Your task to perform on an android device: View the shopping cart on bestbuy. Add "razer nari" to the cart on bestbuy Image 0: 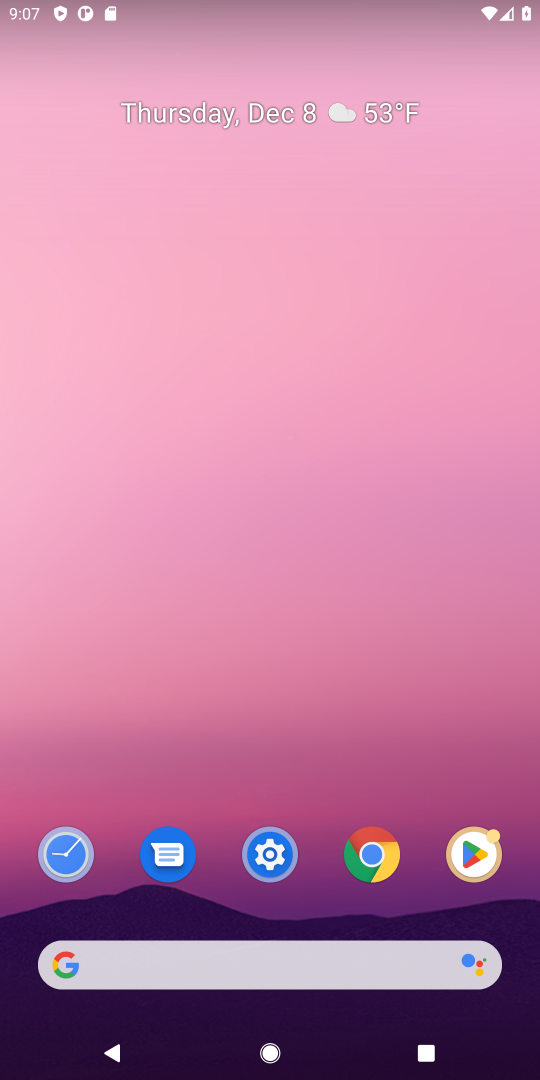
Step 0: press home button
Your task to perform on an android device: View the shopping cart on bestbuy. Add "razer nari" to the cart on bestbuy Image 1: 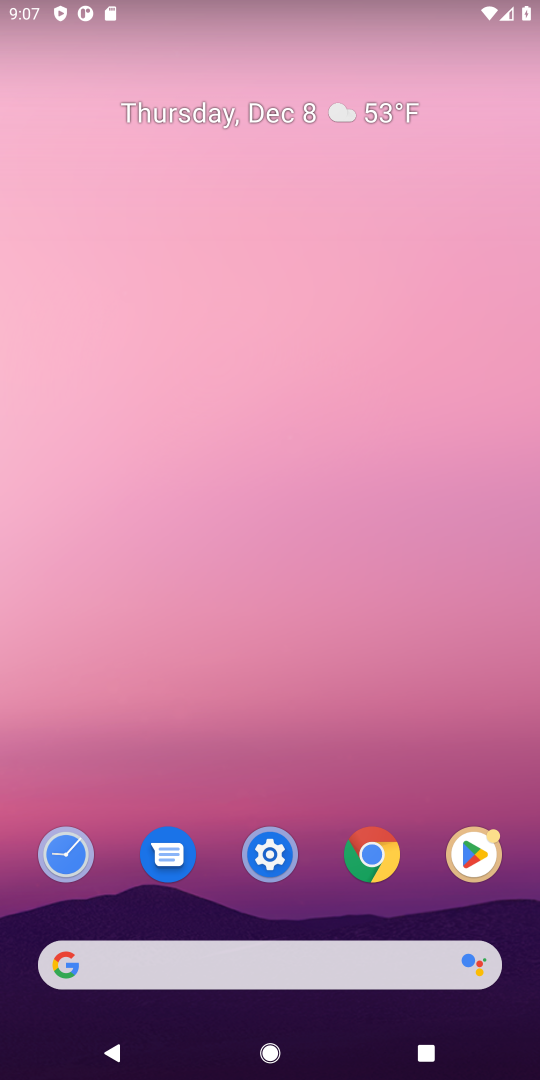
Step 1: click (96, 967)
Your task to perform on an android device: View the shopping cart on bestbuy. Add "razer nari" to the cart on bestbuy Image 2: 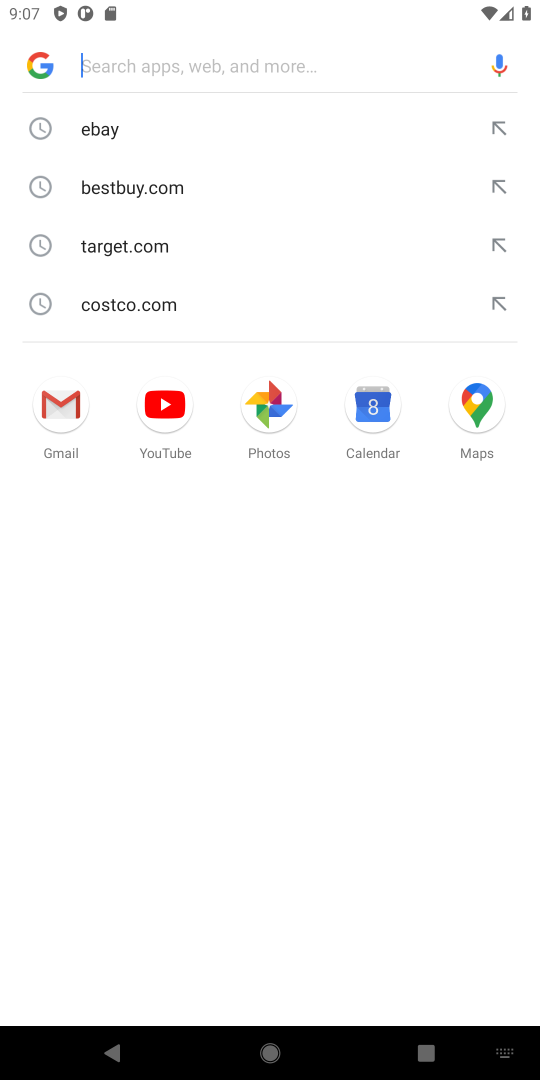
Step 2: type "bestbuy"
Your task to perform on an android device: View the shopping cart on bestbuy. Add "razer nari" to the cart on bestbuy Image 3: 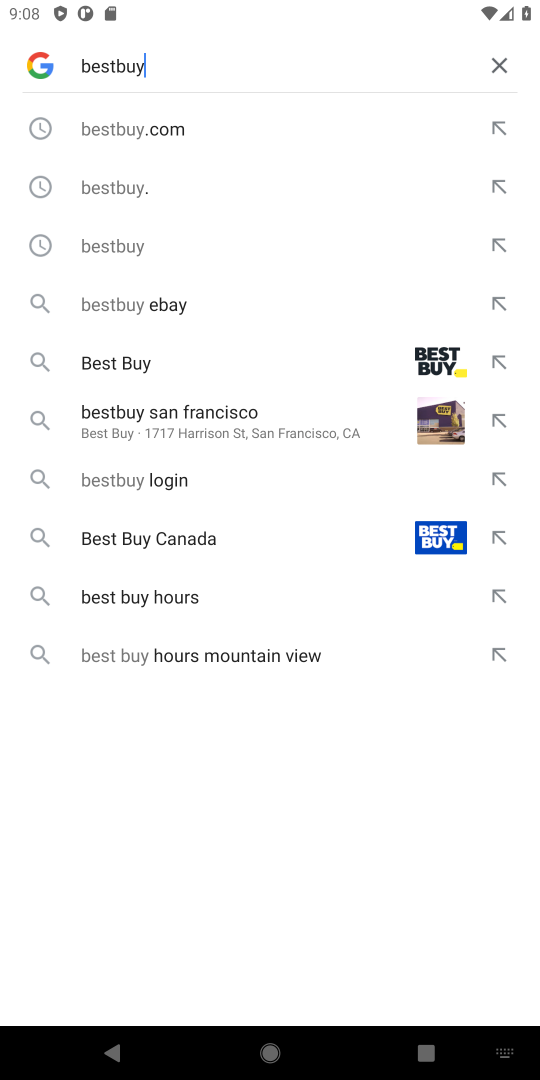
Step 3: press enter
Your task to perform on an android device: View the shopping cart on bestbuy. Add "razer nari" to the cart on bestbuy Image 4: 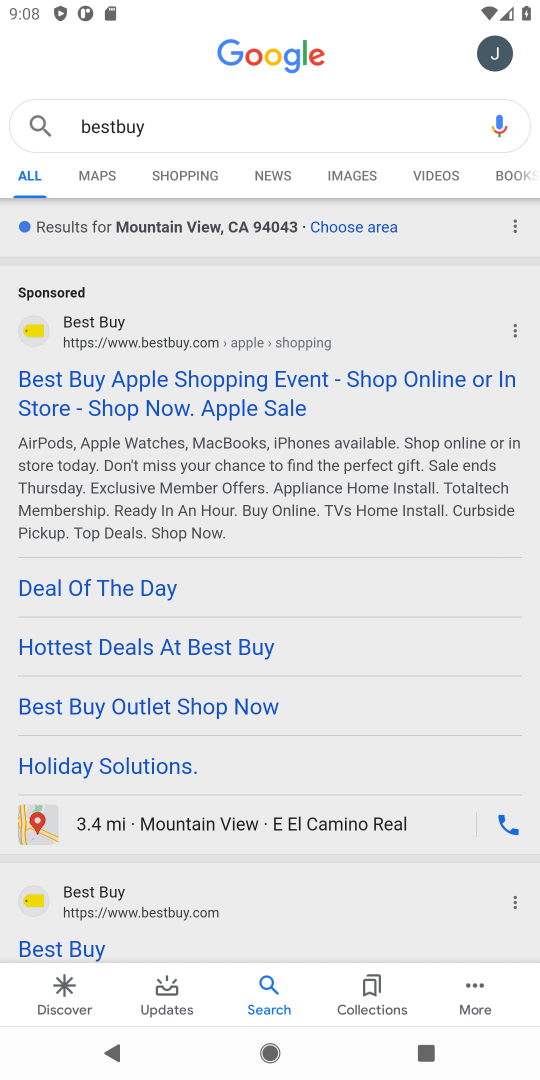
Step 4: click (154, 389)
Your task to perform on an android device: View the shopping cart on bestbuy. Add "razer nari" to the cart on bestbuy Image 5: 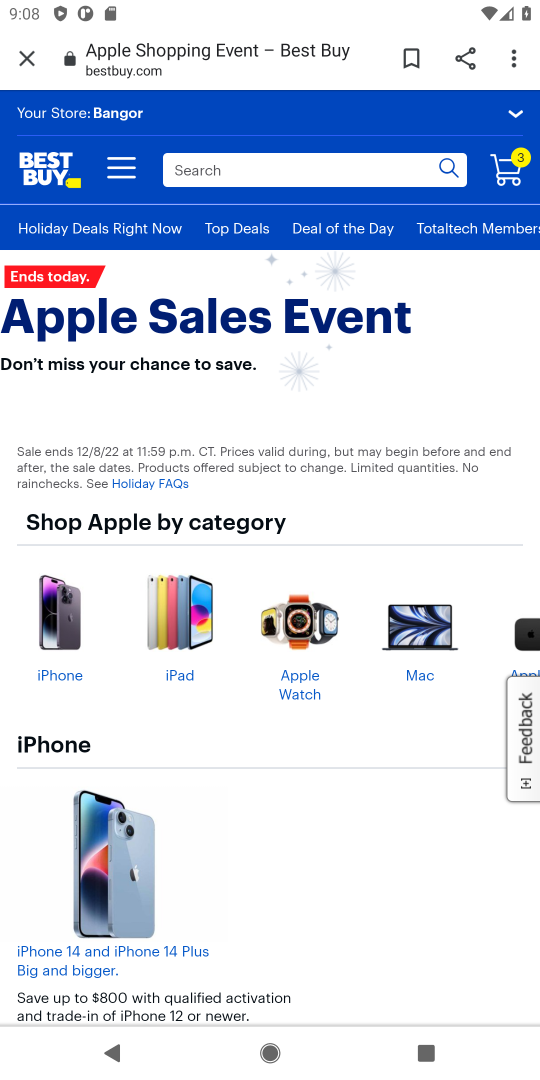
Step 5: click (514, 165)
Your task to perform on an android device: View the shopping cart on bestbuy. Add "razer nari" to the cart on bestbuy Image 6: 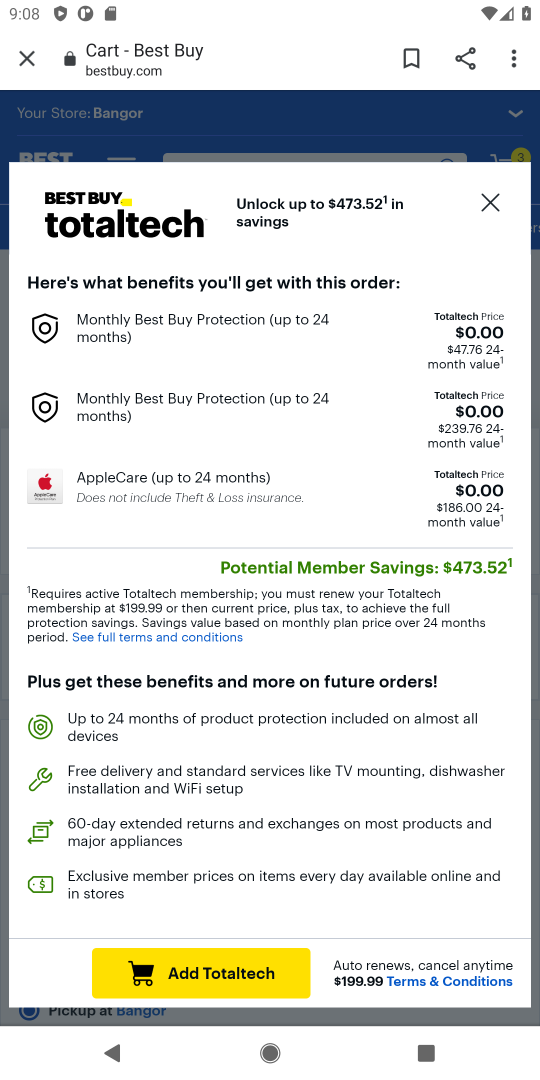
Step 6: click (495, 194)
Your task to perform on an android device: View the shopping cart on bestbuy. Add "razer nari" to the cart on bestbuy Image 7: 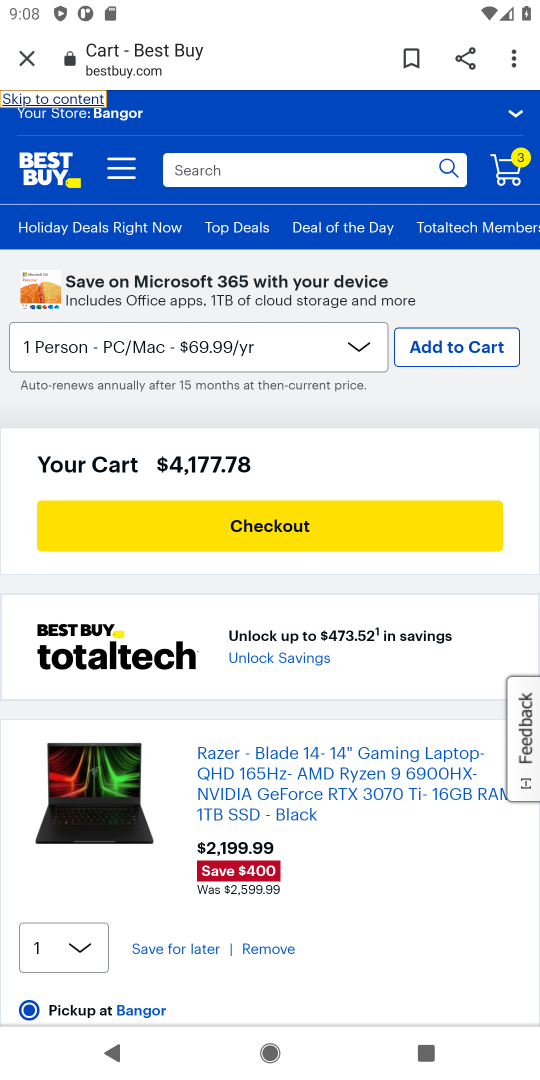
Step 7: task complete